Your task to perform on an android device: move a message to another label in the gmail app Image 0: 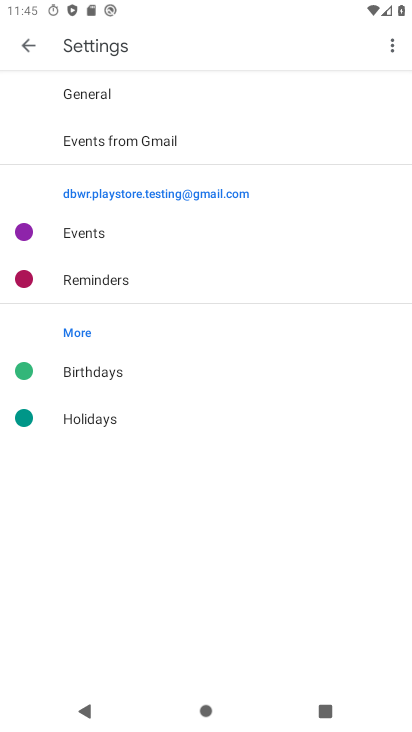
Step 0: press home button
Your task to perform on an android device: move a message to another label in the gmail app Image 1: 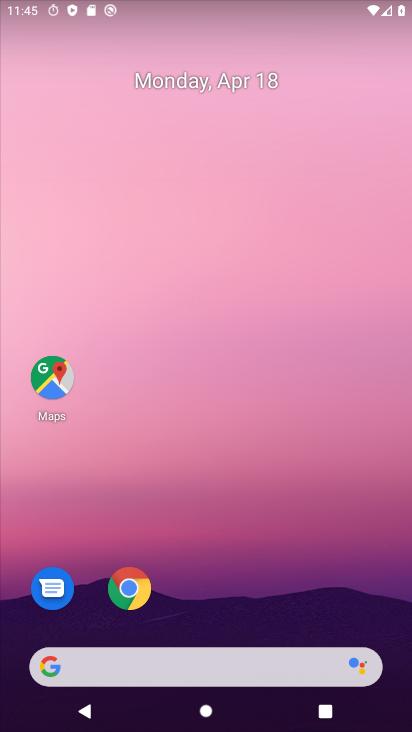
Step 1: drag from (205, 629) to (242, 15)
Your task to perform on an android device: move a message to another label in the gmail app Image 2: 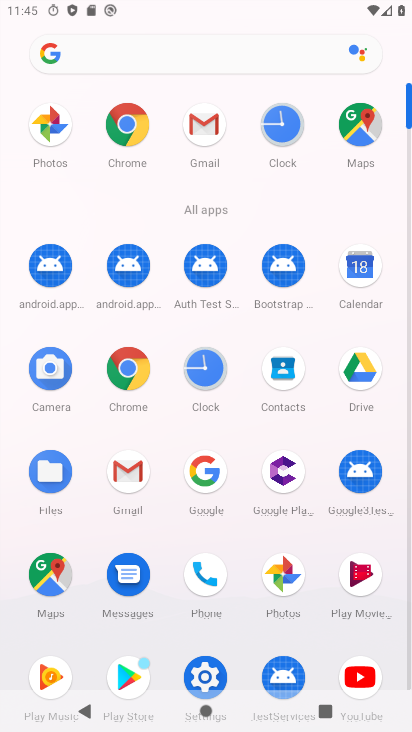
Step 2: click (126, 488)
Your task to perform on an android device: move a message to another label in the gmail app Image 3: 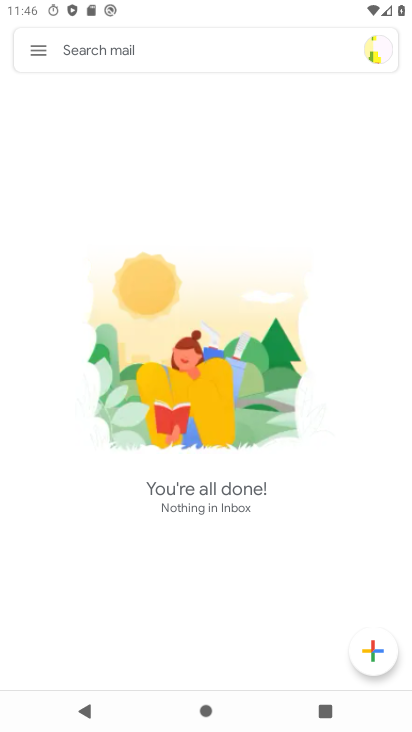
Step 3: task complete